Your task to perform on an android device: Go to wifi settings Image 0: 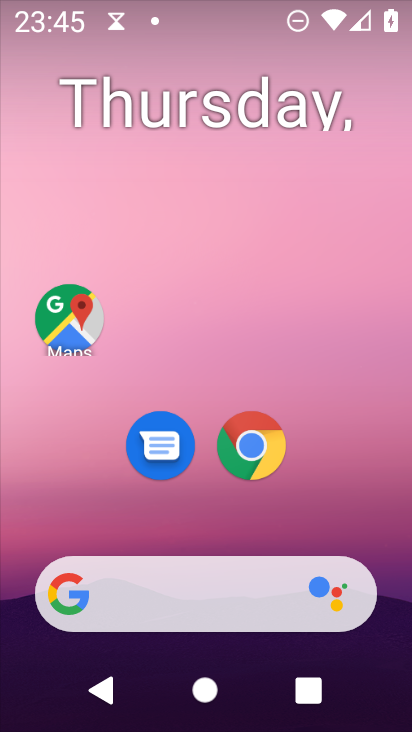
Step 0: drag from (220, 721) to (220, 38)
Your task to perform on an android device: Go to wifi settings Image 1: 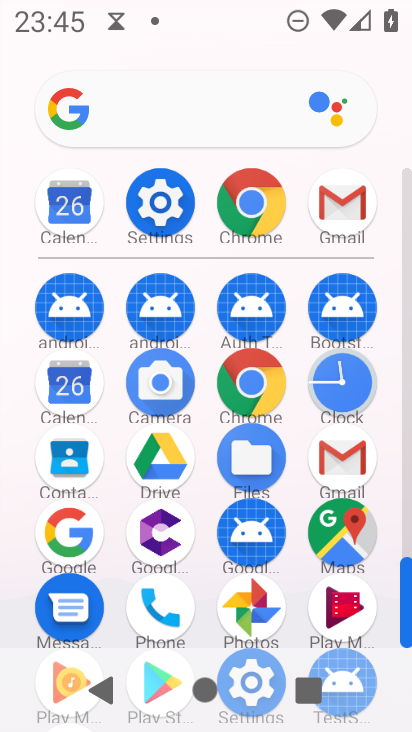
Step 1: click (160, 204)
Your task to perform on an android device: Go to wifi settings Image 2: 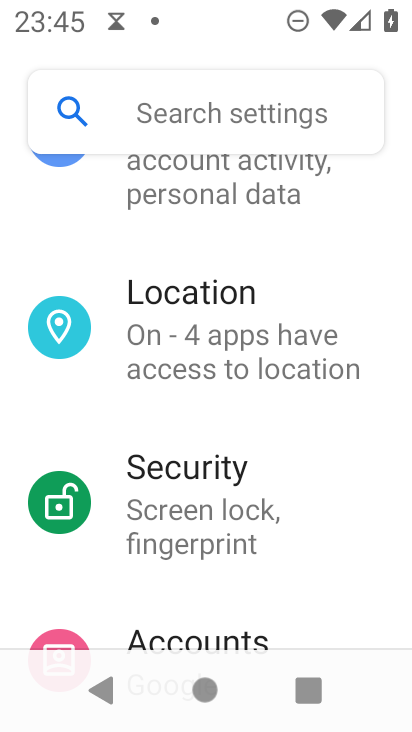
Step 2: drag from (321, 200) to (332, 514)
Your task to perform on an android device: Go to wifi settings Image 3: 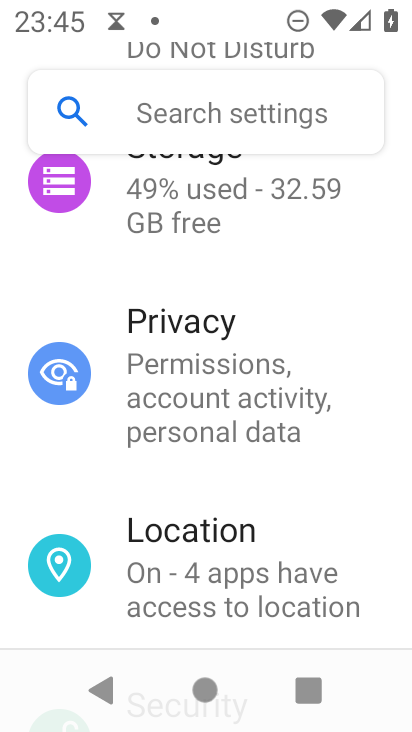
Step 3: drag from (339, 178) to (340, 576)
Your task to perform on an android device: Go to wifi settings Image 4: 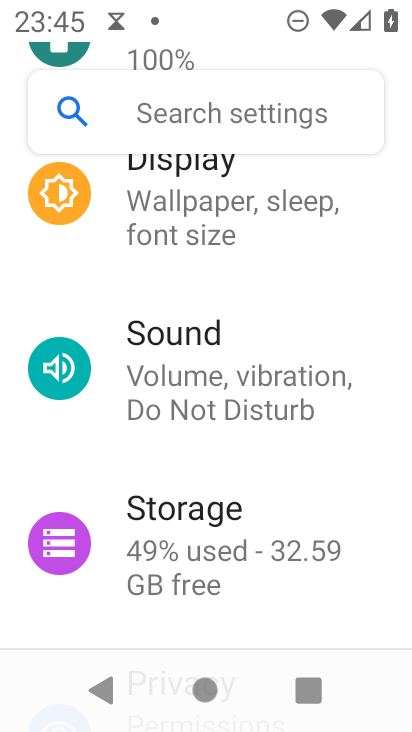
Step 4: drag from (344, 175) to (338, 600)
Your task to perform on an android device: Go to wifi settings Image 5: 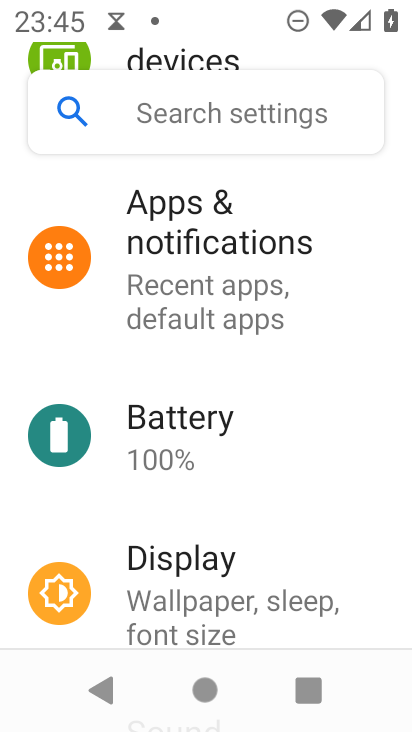
Step 5: drag from (341, 174) to (365, 569)
Your task to perform on an android device: Go to wifi settings Image 6: 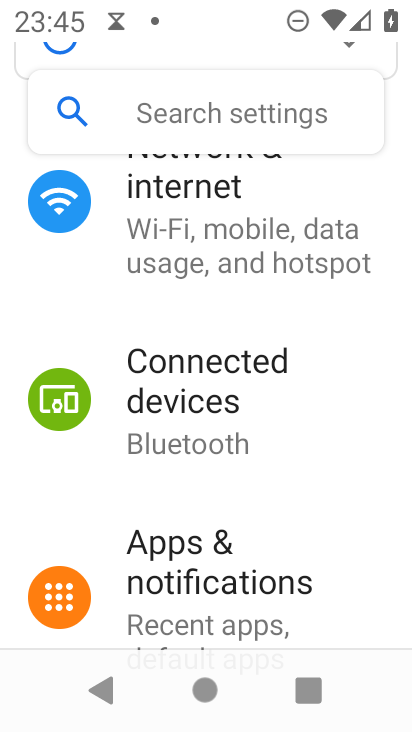
Step 6: drag from (370, 206) to (385, 577)
Your task to perform on an android device: Go to wifi settings Image 7: 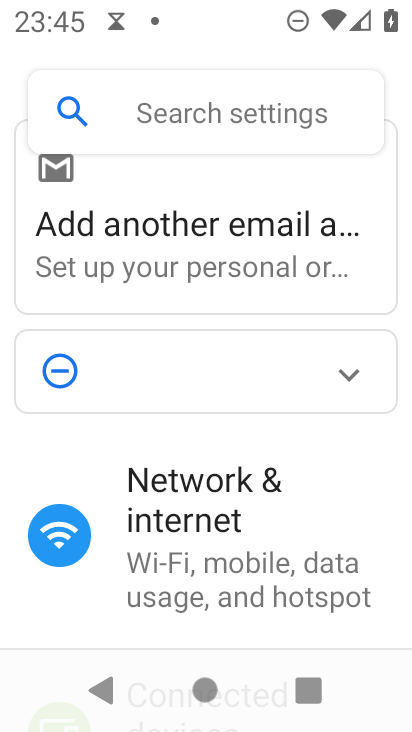
Step 7: click (195, 523)
Your task to perform on an android device: Go to wifi settings Image 8: 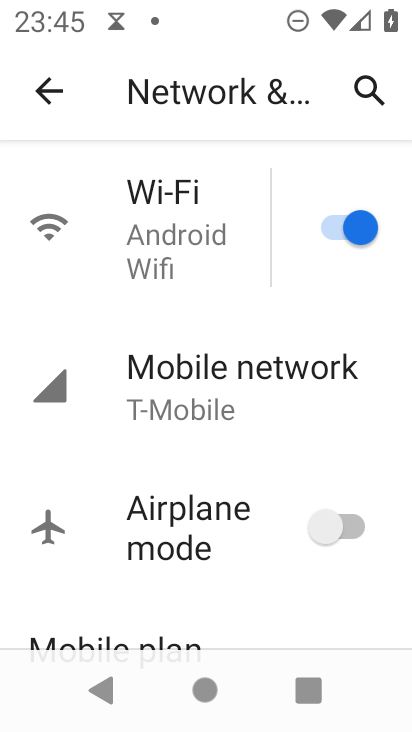
Step 8: click (145, 223)
Your task to perform on an android device: Go to wifi settings Image 9: 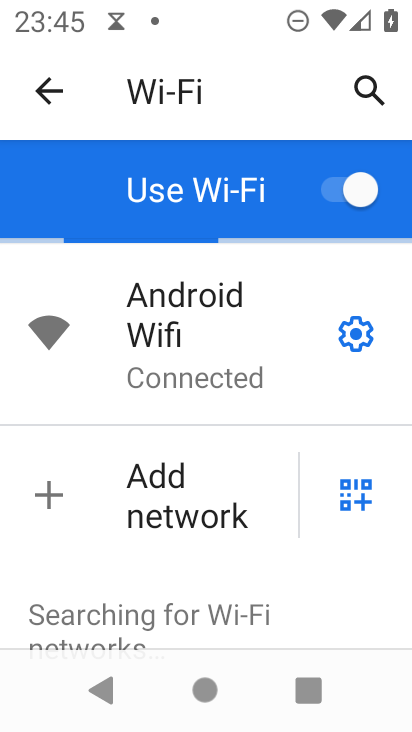
Step 9: task complete